Your task to perform on an android device: set default search engine in the chrome app Image 0: 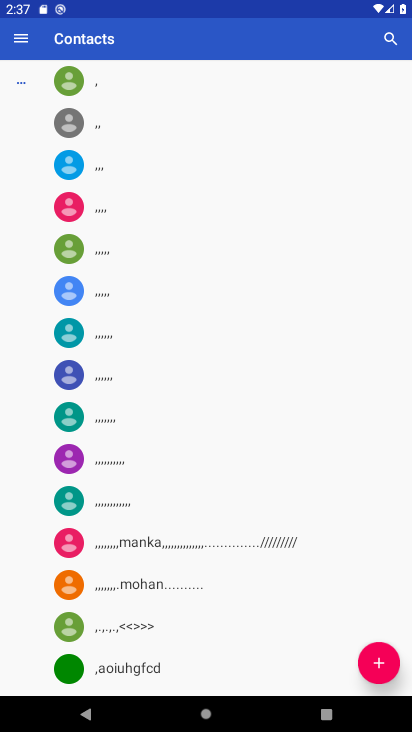
Step 0: press home button
Your task to perform on an android device: set default search engine in the chrome app Image 1: 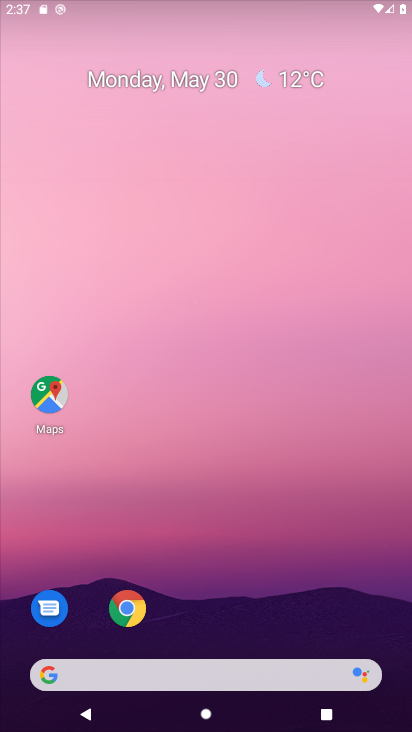
Step 1: click (138, 610)
Your task to perform on an android device: set default search engine in the chrome app Image 2: 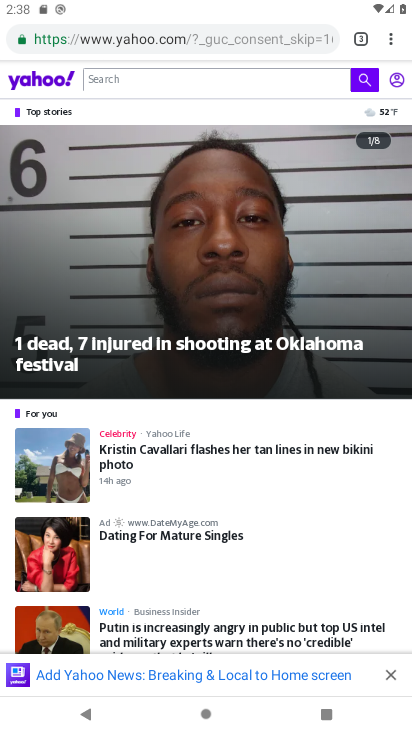
Step 2: click (389, 33)
Your task to perform on an android device: set default search engine in the chrome app Image 3: 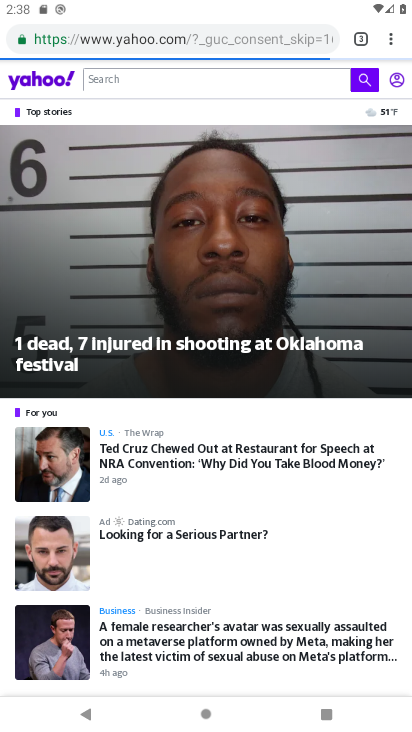
Step 3: click (391, 40)
Your task to perform on an android device: set default search engine in the chrome app Image 4: 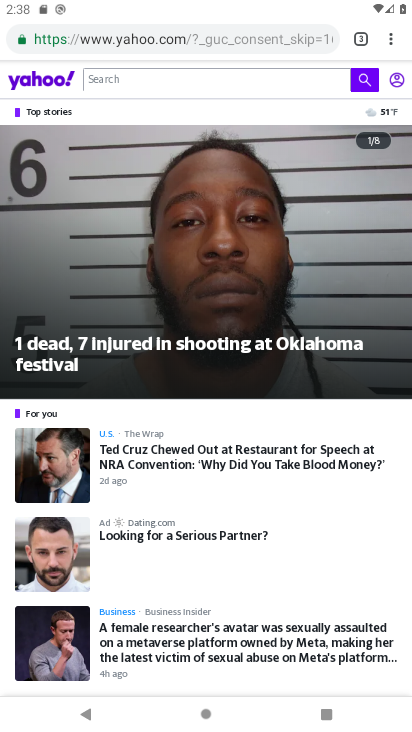
Step 4: click (391, 41)
Your task to perform on an android device: set default search engine in the chrome app Image 5: 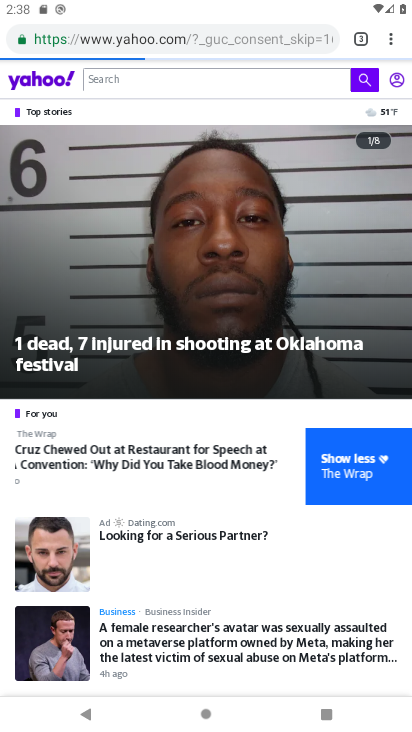
Step 5: click (393, 41)
Your task to perform on an android device: set default search engine in the chrome app Image 6: 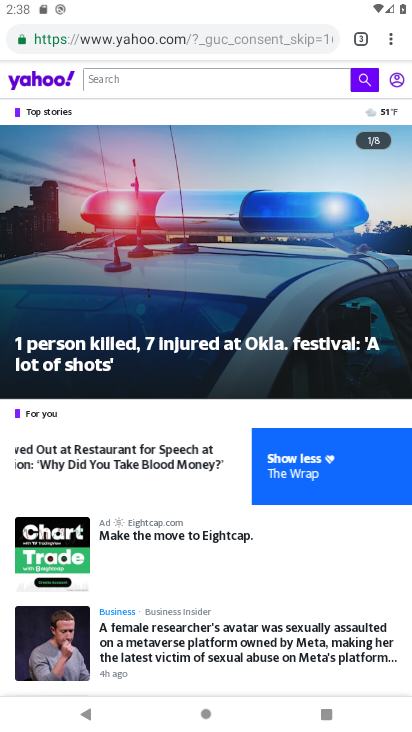
Step 6: click (388, 33)
Your task to perform on an android device: set default search engine in the chrome app Image 7: 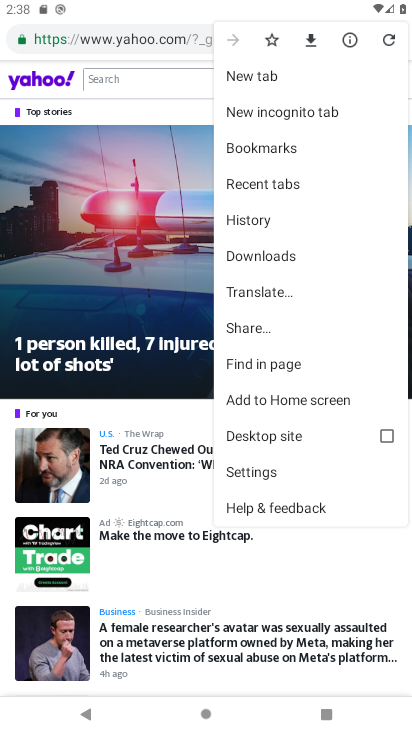
Step 7: click (287, 461)
Your task to perform on an android device: set default search engine in the chrome app Image 8: 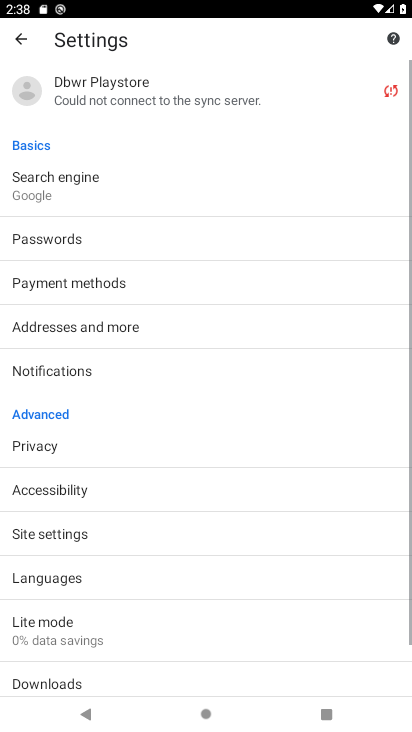
Step 8: click (118, 178)
Your task to perform on an android device: set default search engine in the chrome app Image 9: 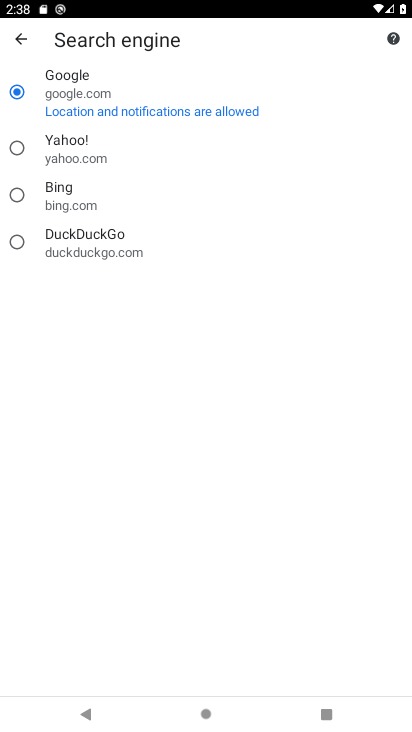
Step 9: click (158, 93)
Your task to perform on an android device: set default search engine in the chrome app Image 10: 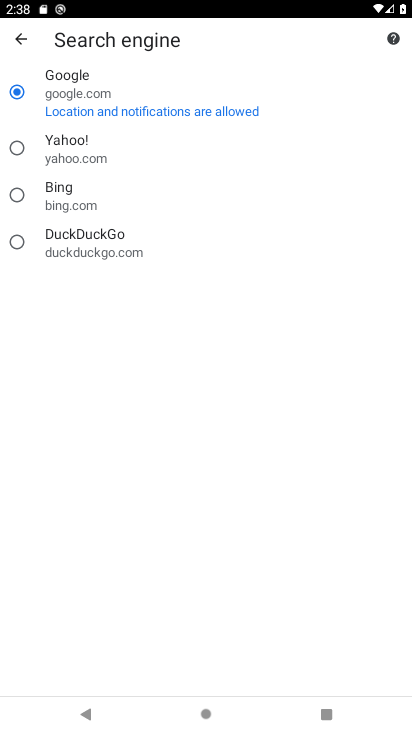
Step 10: task complete